Your task to perform on an android device: Search for "corsair k70" on target.com, select the first entry, and add it to the cart. Image 0: 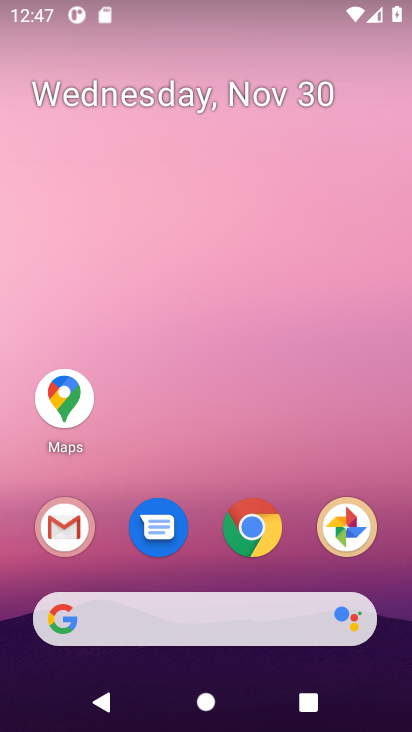
Step 0: click (156, 622)
Your task to perform on an android device: Search for "corsair k70" on target.com, select the first entry, and add it to the cart. Image 1: 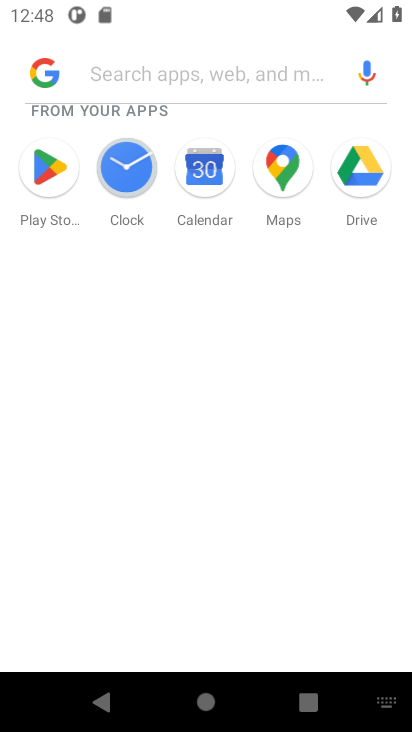
Step 1: press home button
Your task to perform on an android device: Search for "corsair k70" on target.com, select the first entry, and add it to the cart. Image 2: 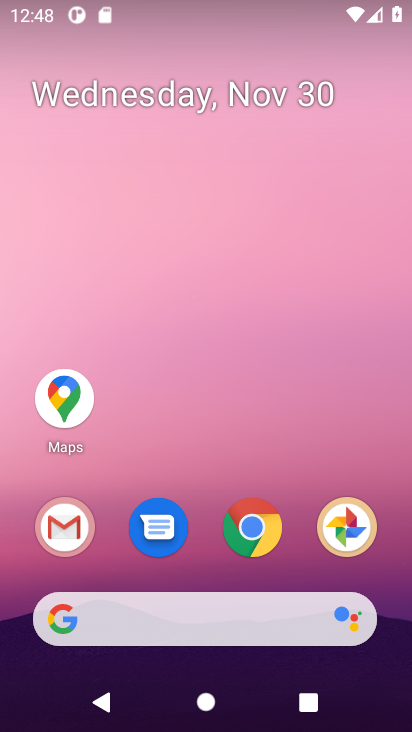
Step 2: click (196, 609)
Your task to perform on an android device: Search for "corsair k70" on target.com, select the first entry, and add it to the cart. Image 3: 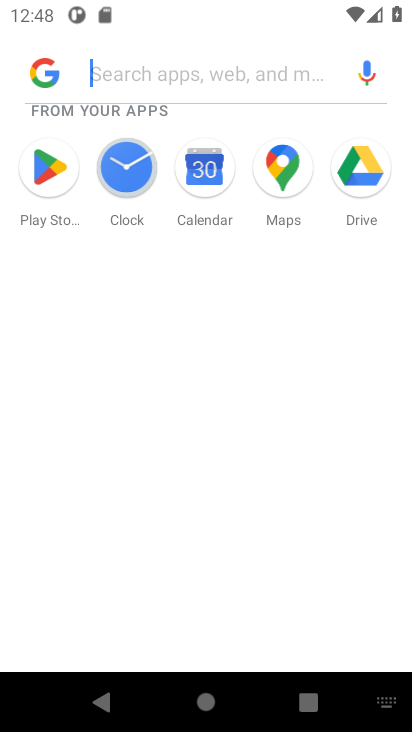
Step 3: press home button
Your task to perform on an android device: Search for "corsair k70" on target.com, select the first entry, and add it to the cart. Image 4: 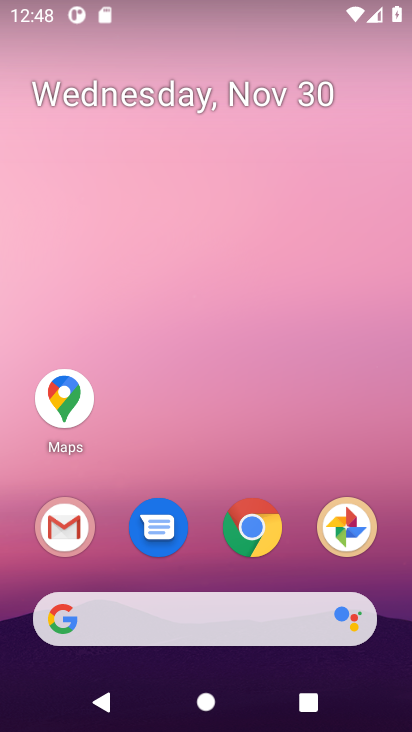
Step 4: click (256, 522)
Your task to perform on an android device: Search for "corsair k70" on target.com, select the first entry, and add it to the cart. Image 5: 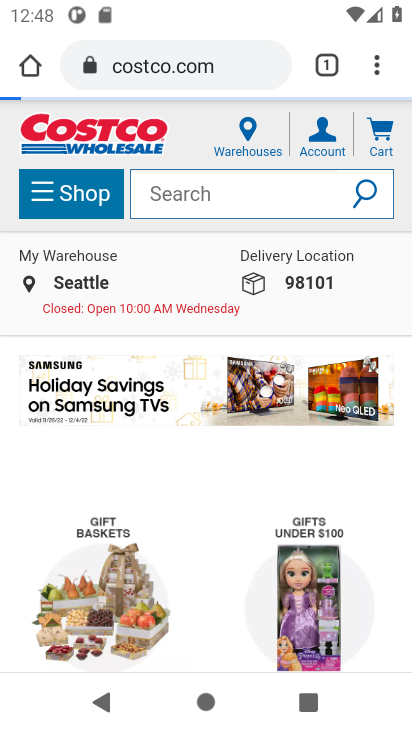
Step 5: click (197, 62)
Your task to perform on an android device: Search for "corsair k70" on target.com, select the first entry, and add it to the cart. Image 6: 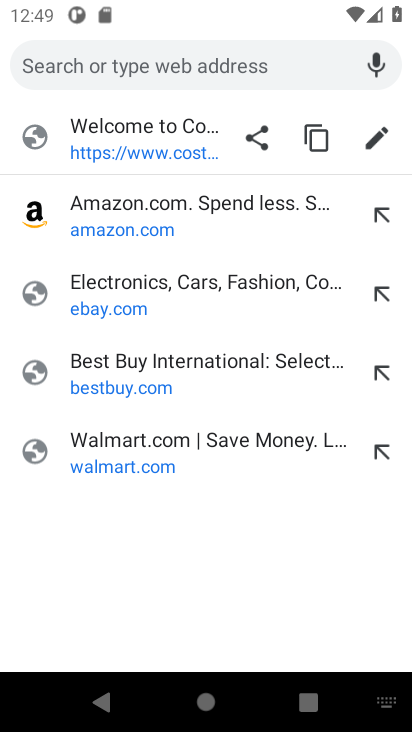
Step 6: type "target"
Your task to perform on an android device: Search for "corsair k70" on target.com, select the first entry, and add it to the cart. Image 7: 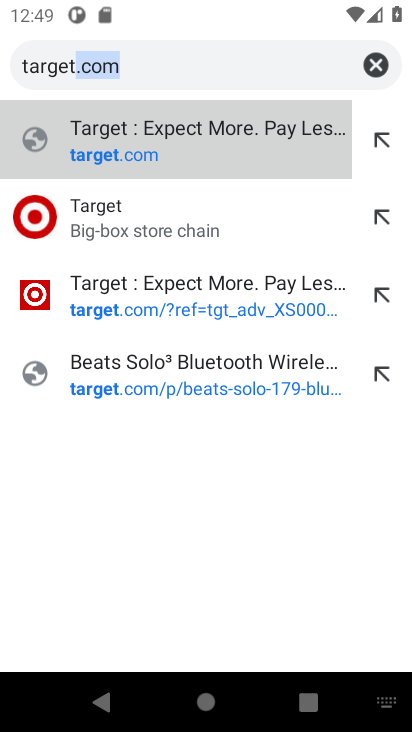
Step 7: click (182, 153)
Your task to perform on an android device: Search for "corsair k70" on target.com, select the first entry, and add it to the cart. Image 8: 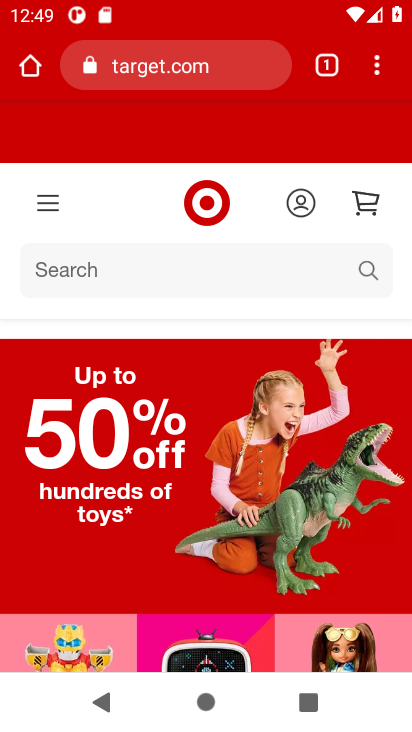
Step 8: click (171, 251)
Your task to perform on an android device: Search for "corsair k70" on target.com, select the first entry, and add it to the cart. Image 9: 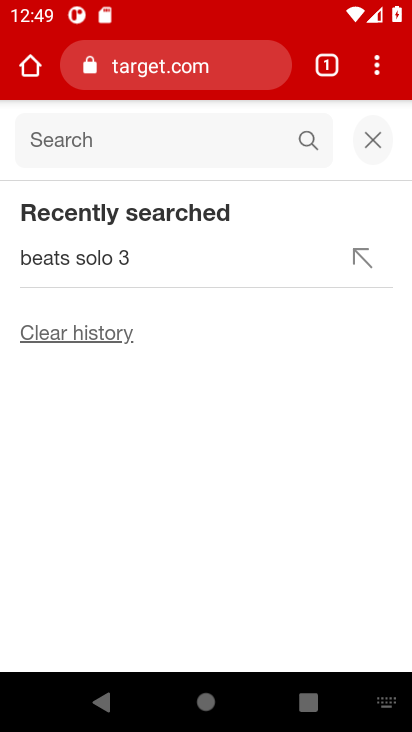
Step 9: type "corsair k70\"
Your task to perform on an android device: Search for "corsair k70" on target.com, select the first entry, and add it to the cart. Image 10: 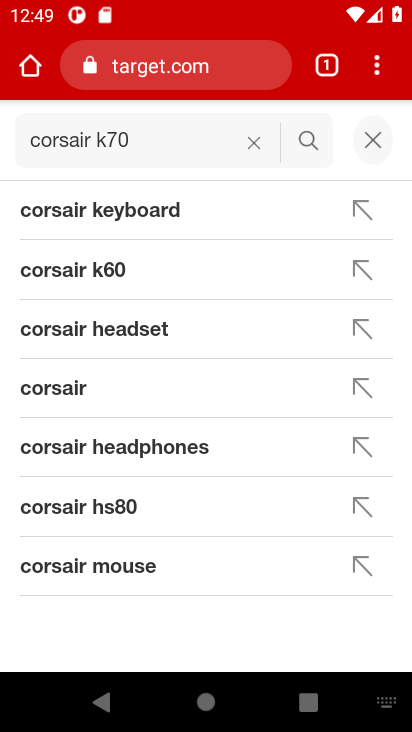
Step 10: click (301, 151)
Your task to perform on an android device: Search for "corsair k70" on target.com, select the first entry, and add it to the cart. Image 11: 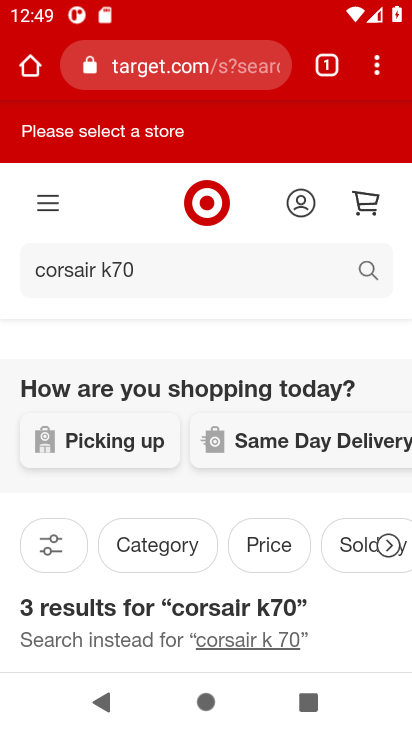
Step 11: drag from (376, 651) to (267, 56)
Your task to perform on an android device: Search for "corsair k70" on target.com, select the first entry, and add it to the cart. Image 12: 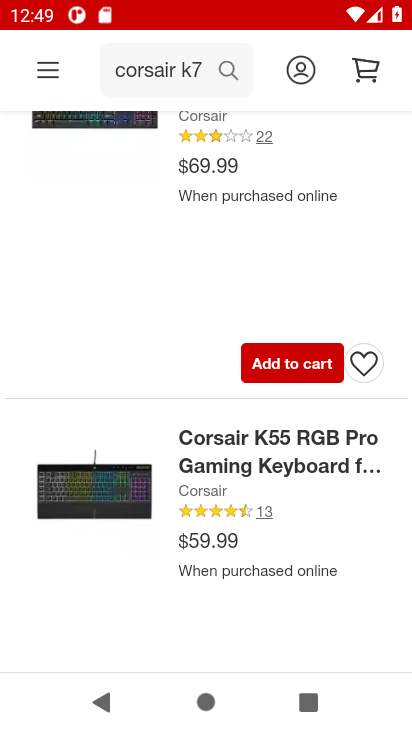
Step 12: click (297, 352)
Your task to perform on an android device: Search for "corsair k70" on target.com, select the first entry, and add it to the cart. Image 13: 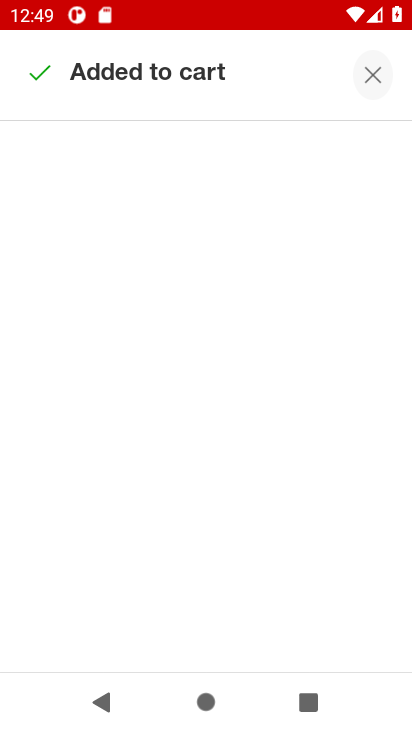
Step 13: task complete